Your task to perform on an android device: Open ESPN.com Image 0: 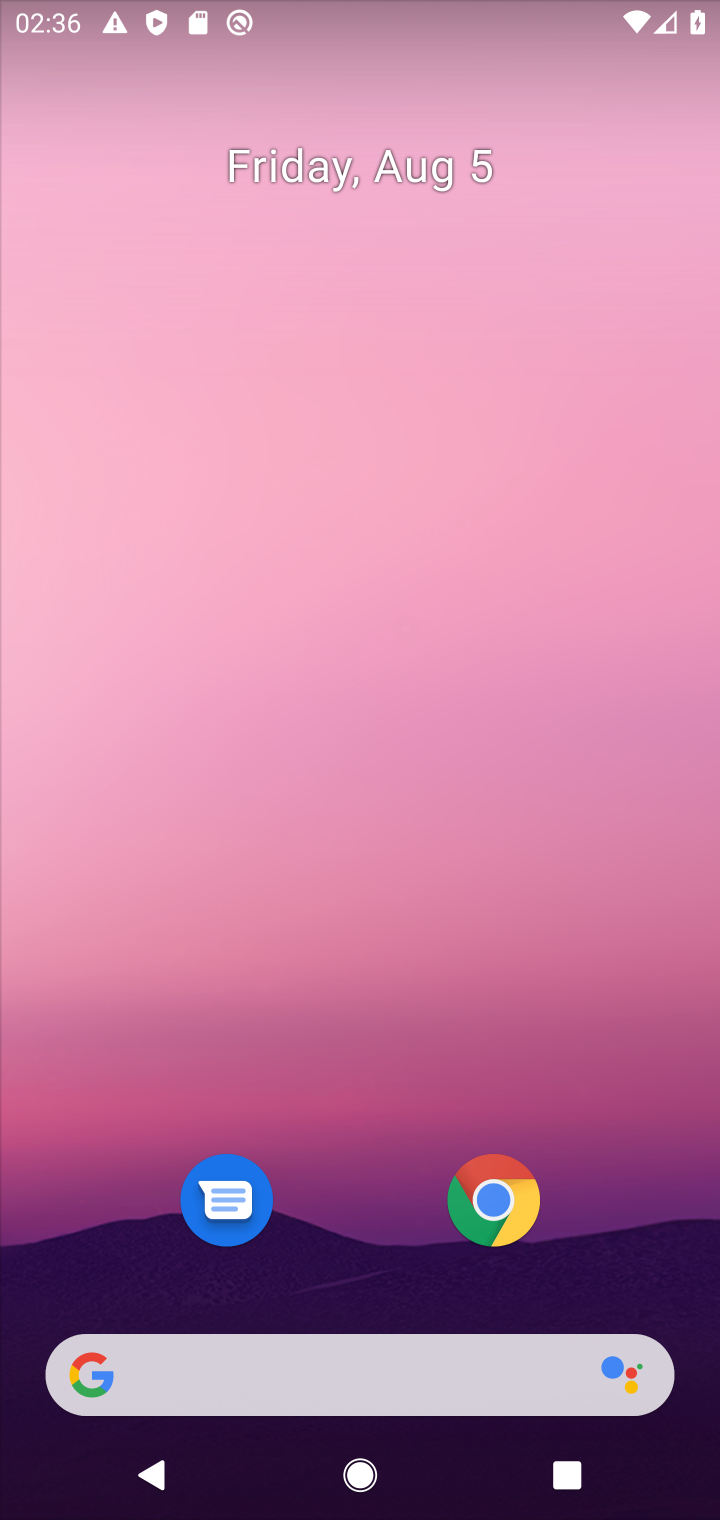
Step 0: click (484, 1199)
Your task to perform on an android device: Open ESPN.com Image 1: 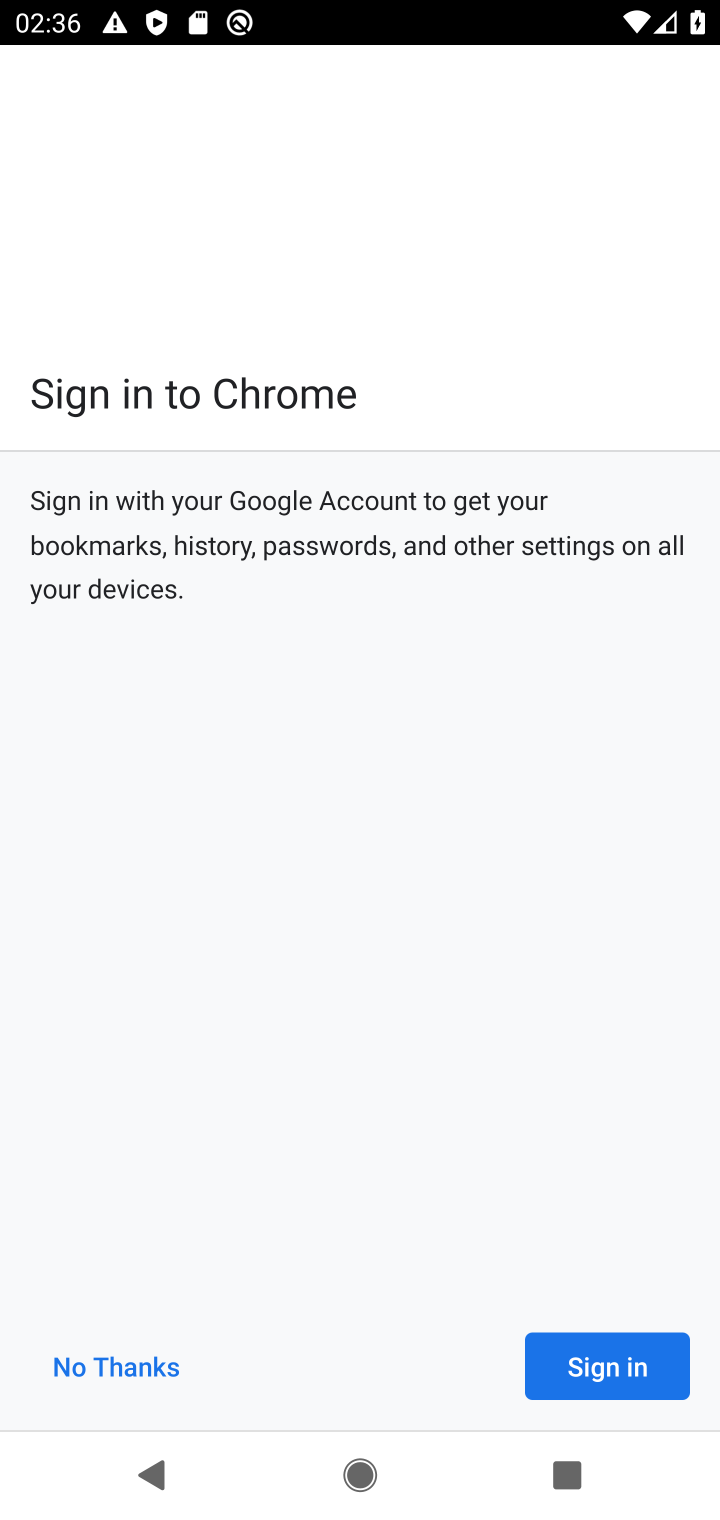
Step 1: click (595, 1365)
Your task to perform on an android device: Open ESPN.com Image 2: 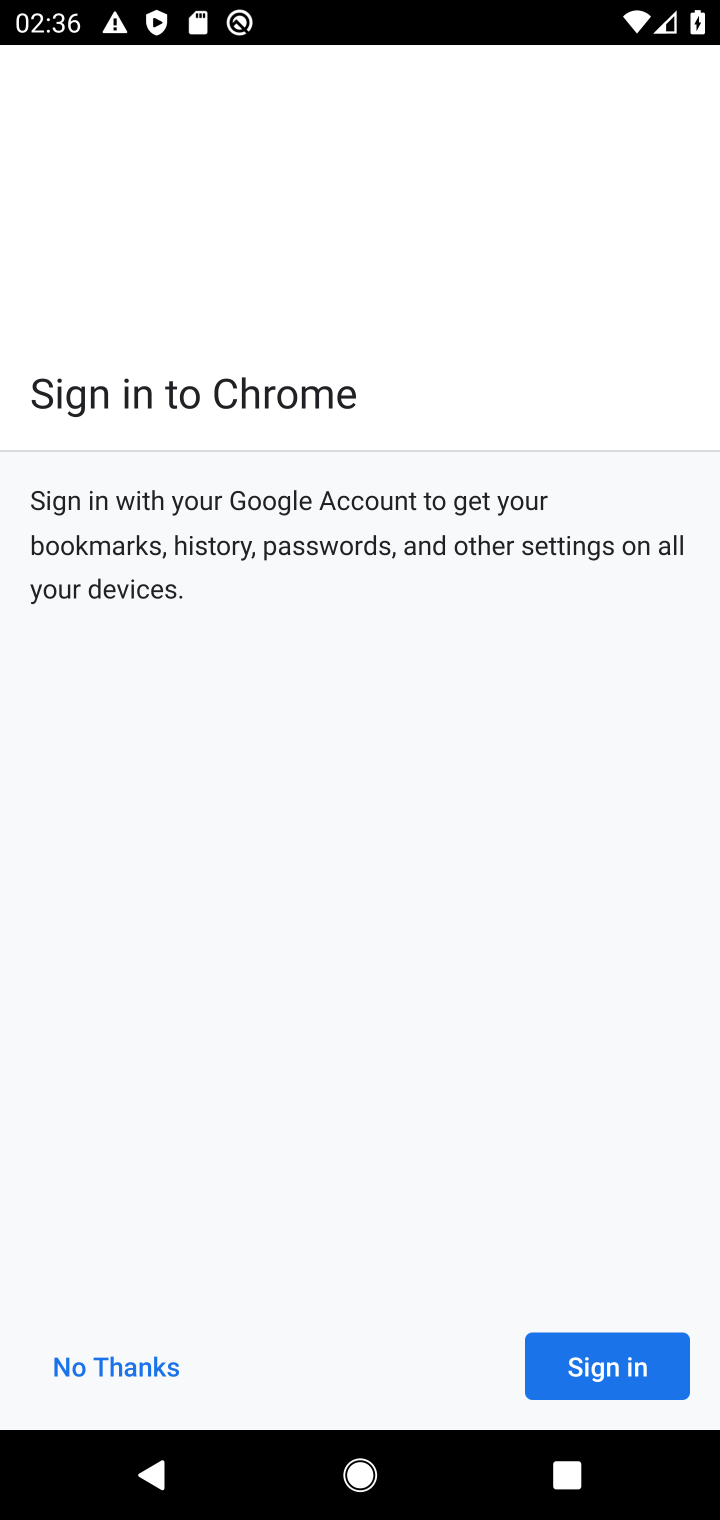
Step 2: click (595, 1365)
Your task to perform on an android device: Open ESPN.com Image 3: 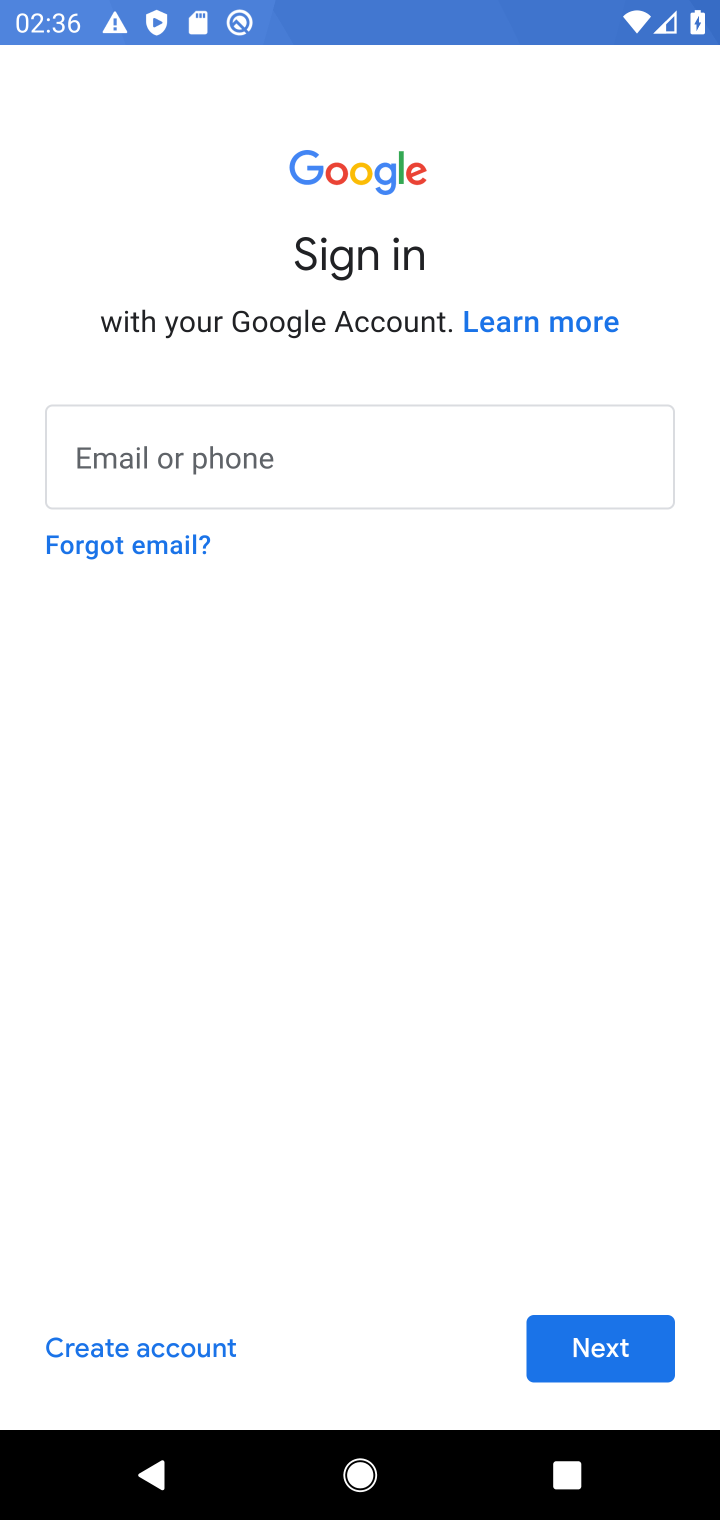
Step 3: click (595, 1365)
Your task to perform on an android device: Open ESPN.com Image 4: 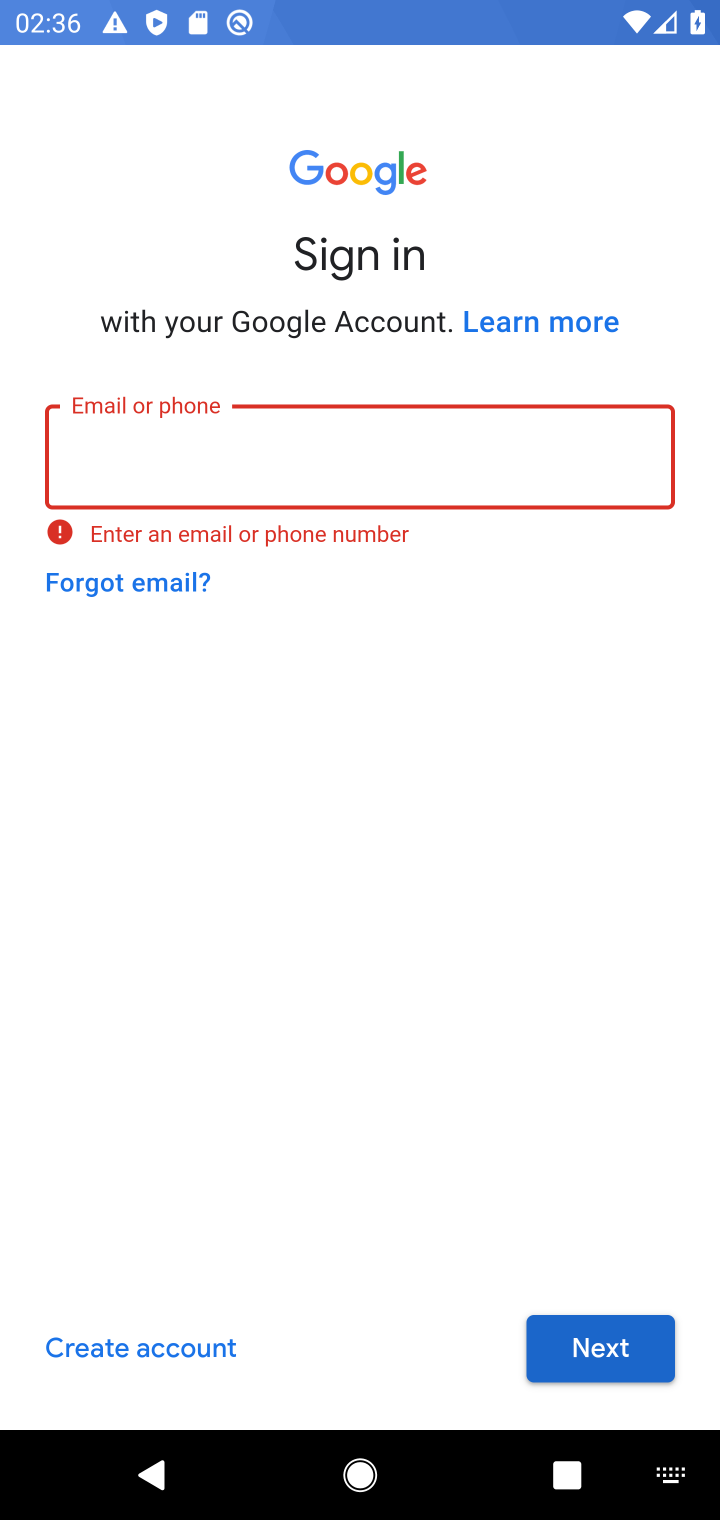
Step 4: task complete